Your task to perform on an android device: Turn on the flashlight Image 0: 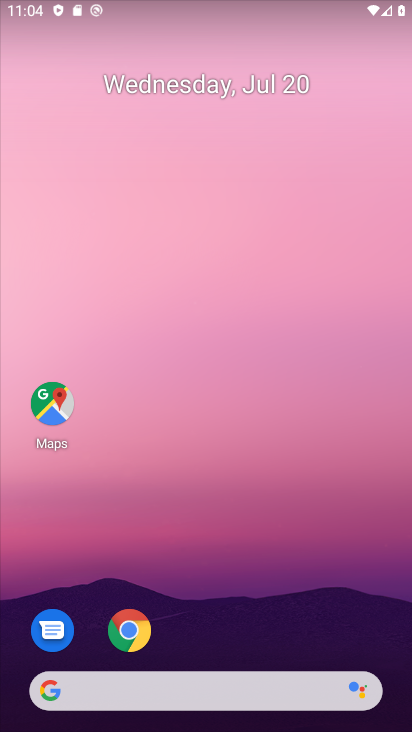
Step 0: press home button
Your task to perform on an android device: Turn on the flashlight Image 1: 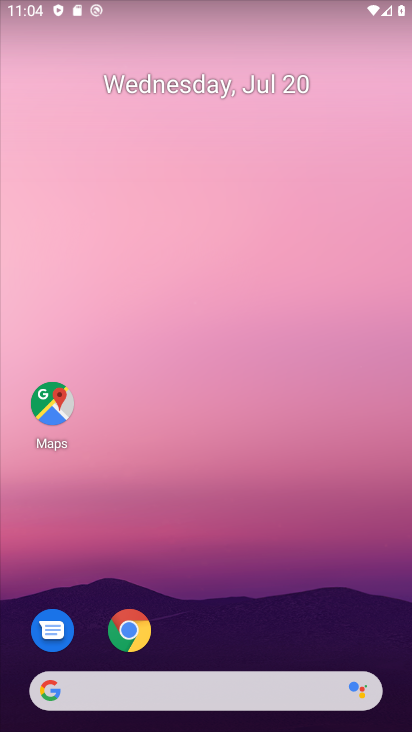
Step 1: drag from (219, 645) to (241, 89)
Your task to perform on an android device: Turn on the flashlight Image 2: 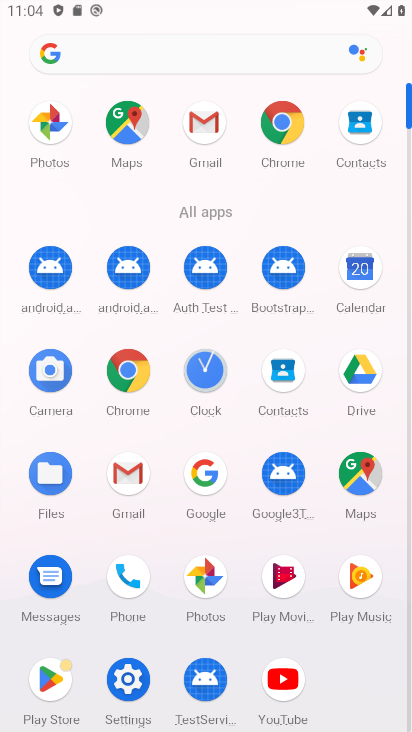
Step 2: click (124, 674)
Your task to perform on an android device: Turn on the flashlight Image 3: 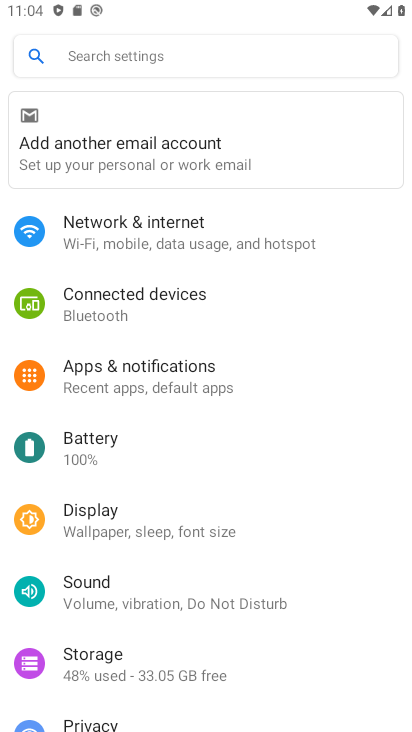
Step 3: click (111, 45)
Your task to perform on an android device: Turn on the flashlight Image 4: 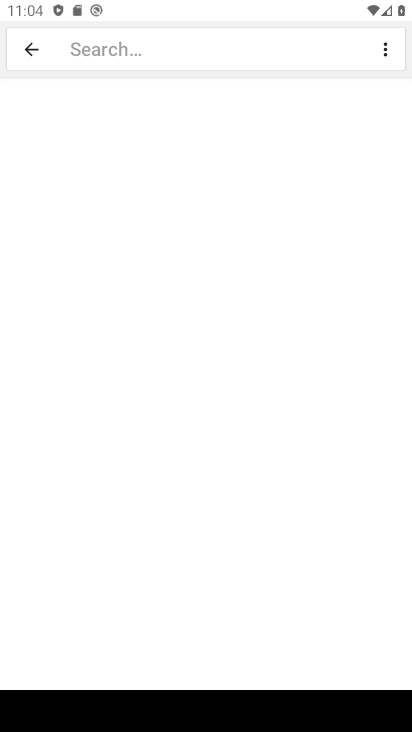
Step 4: type "flashlight"
Your task to perform on an android device: Turn on the flashlight Image 5: 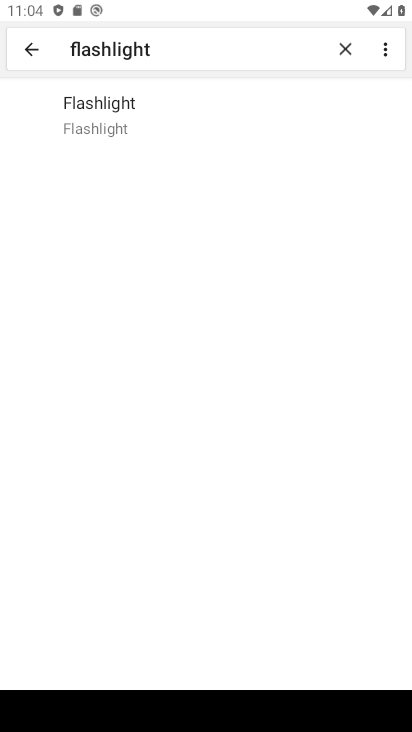
Step 5: click (138, 113)
Your task to perform on an android device: Turn on the flashlight Image 6: 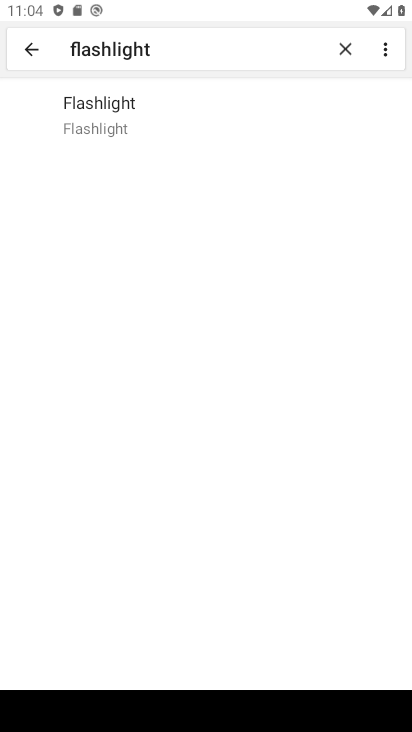
Step 6: click (145, 115)
Your task to perform on an android device: Turn on the flashlight Image 7: 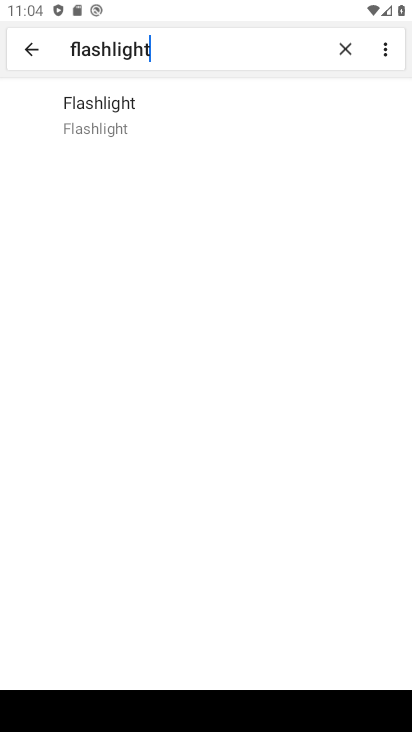
Step 7: task complete